Your task to perform on an android device: Open display settings Image 0: 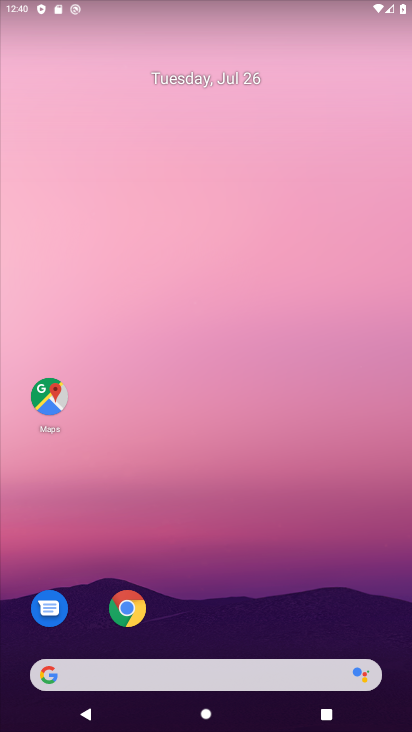
Step 0: drag from (209, 571) to (242, 178)
Your task to perform on an android device: Open display settings Image 1: 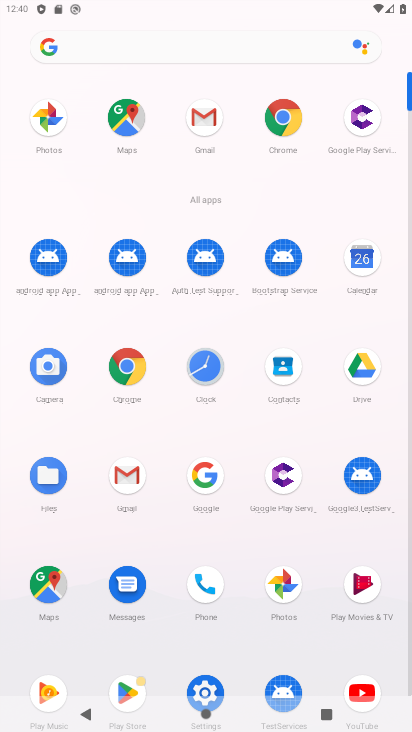
Step 1: click (207, 684)
Your task to perform on an android device: Open display settings Image 2: 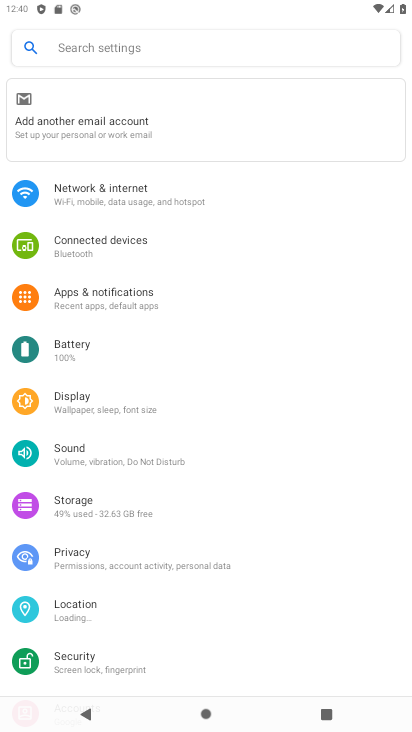
Step 2: click (99, 406)
Your task to perform on an android device: Open display settings Image 3: 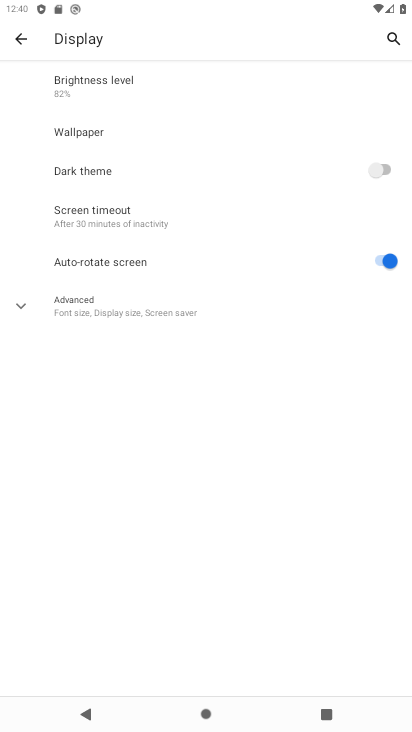
Step 3: task complete